Your task to perform on an android device: empty trash in google photos Image 0: 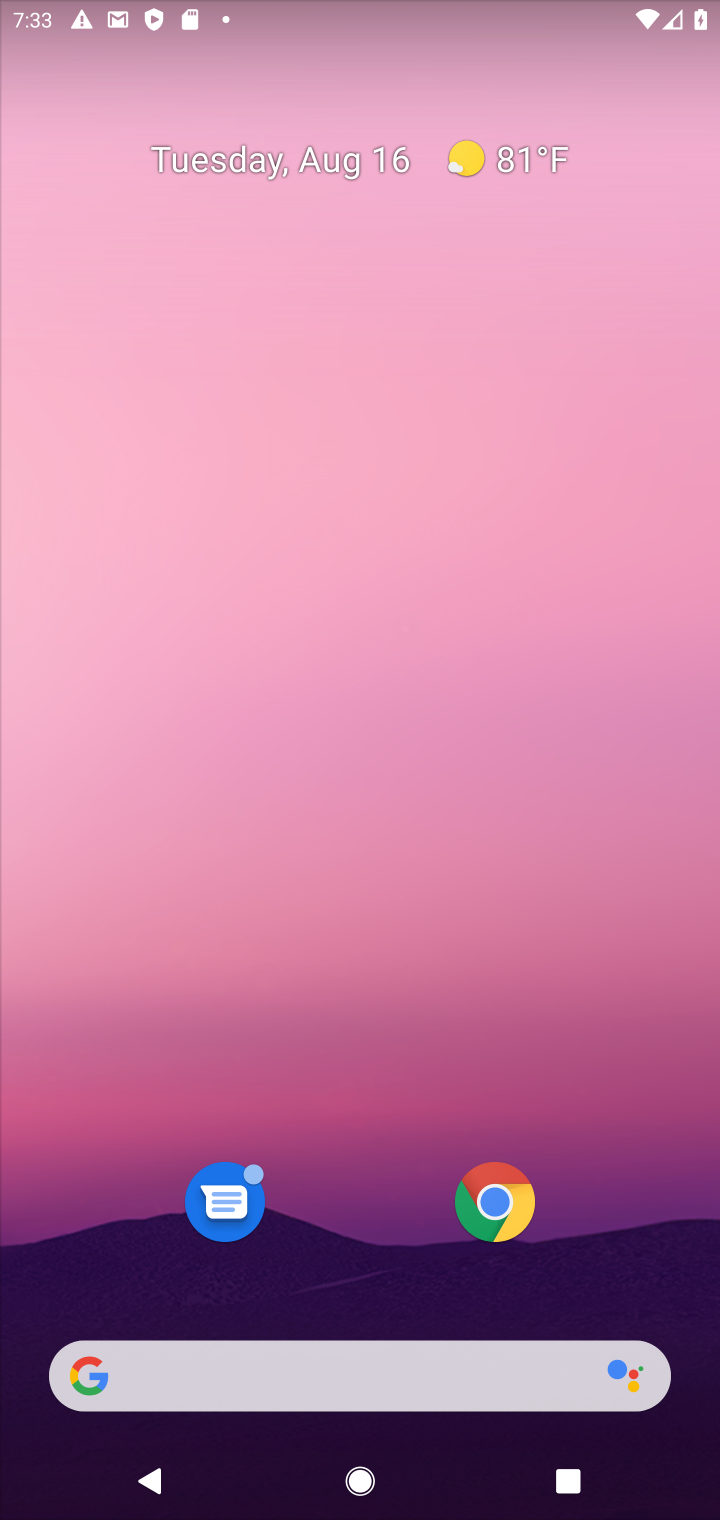
Step 0: drag from (392, 1320) to (252, 7)
Your task to perform on an android device: empty trash in google photos Image 1: 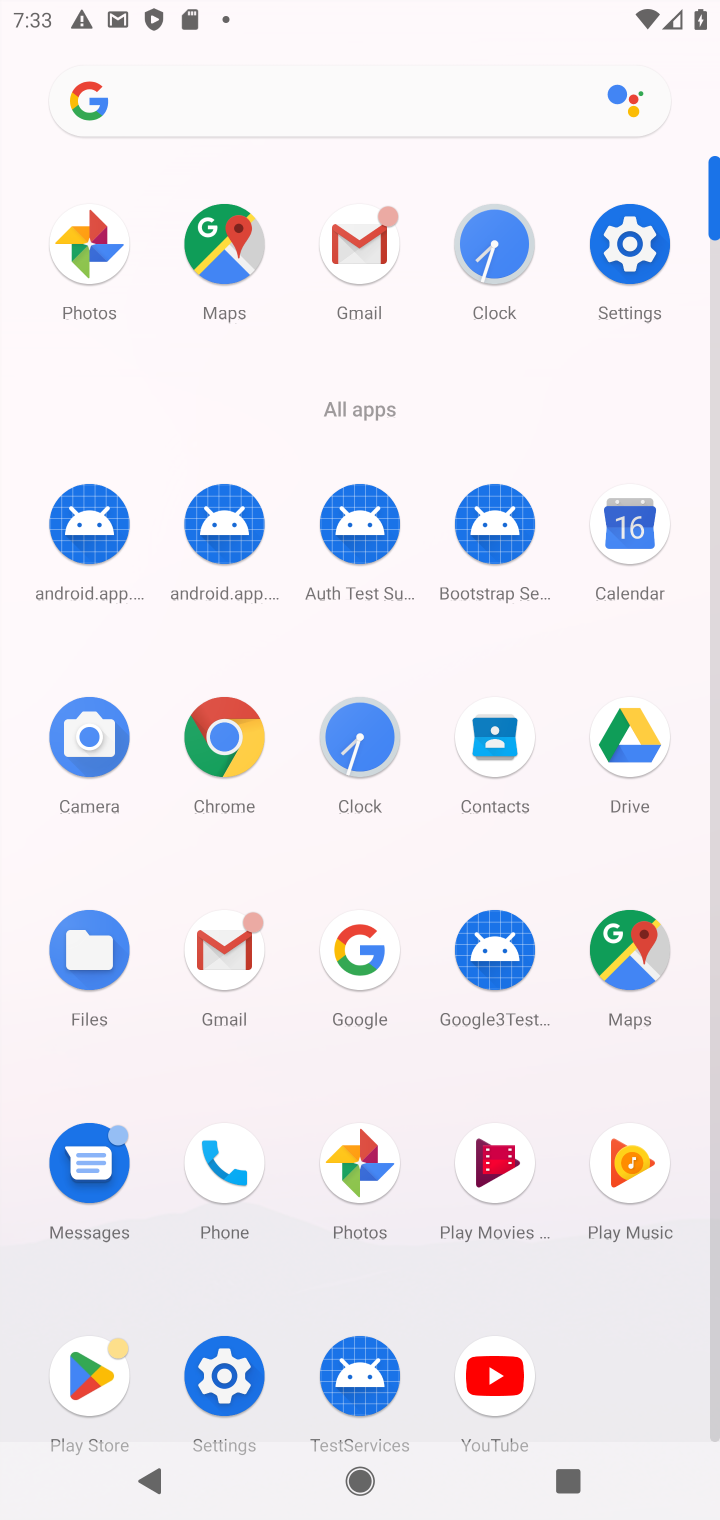
Step 1: click (103, 261)
Your task to perform on an android device: empty trash in google photos Image 2: 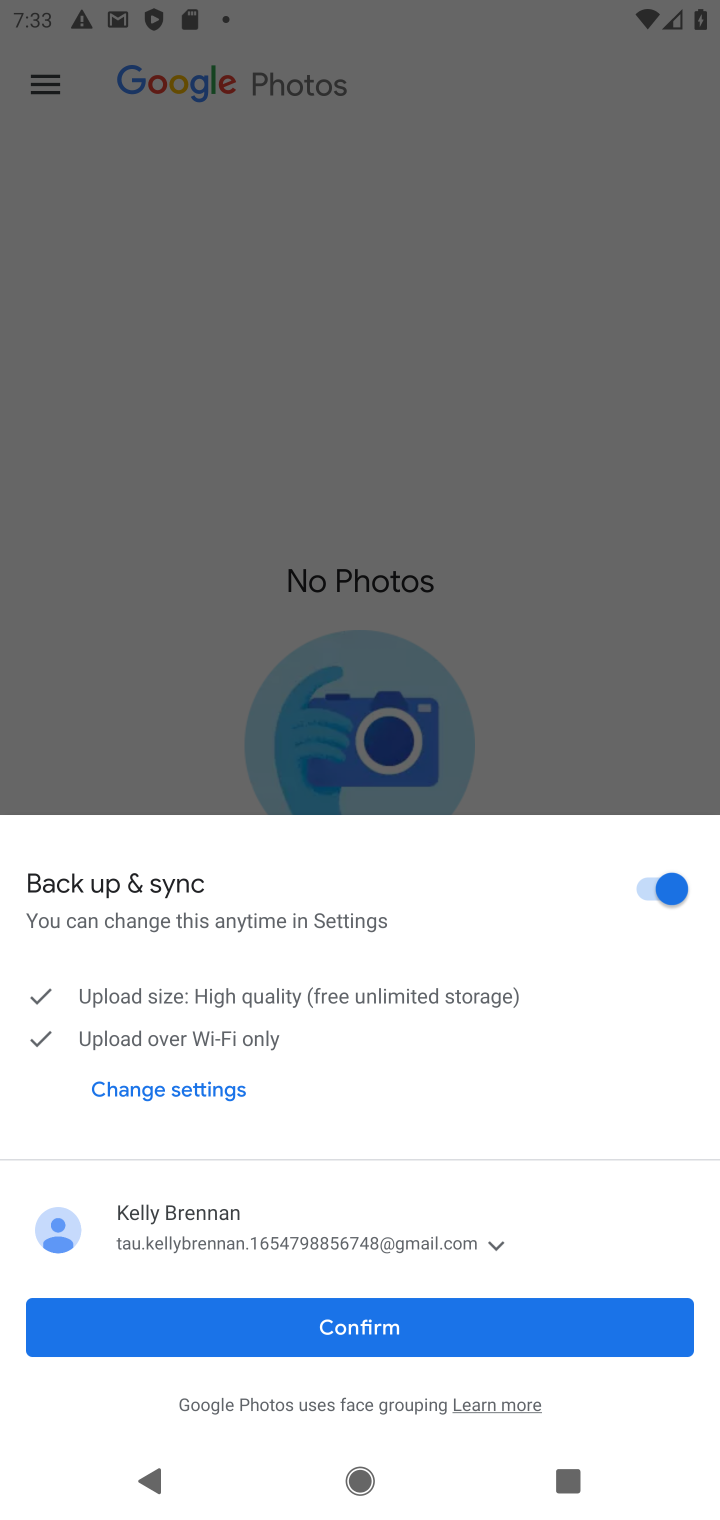
Step 2: click (332, 1328)
Your task to perform on an android device: empty trash in google photos Image 3: 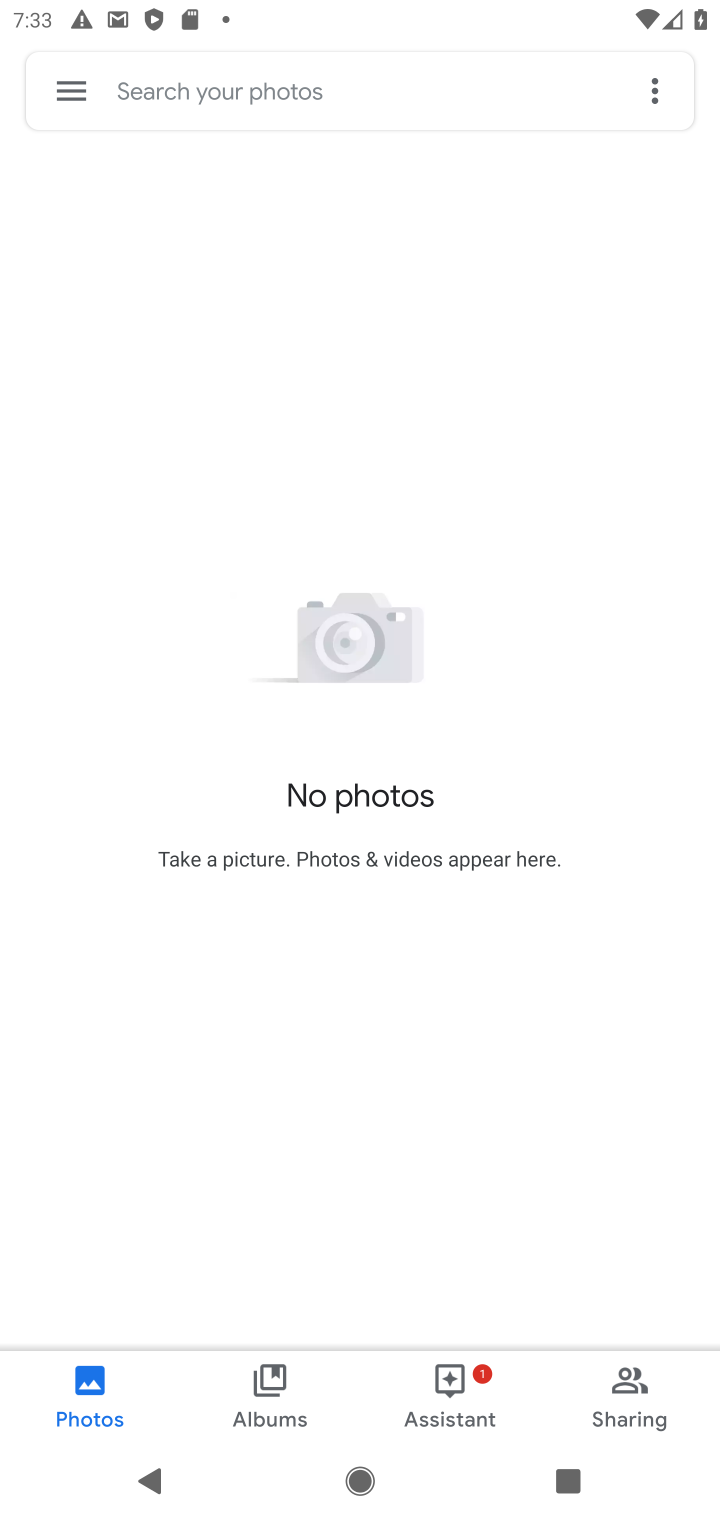
Step 3: click (76, 79)
Your task to perform on an android device: empty trash in google photos Image 4: 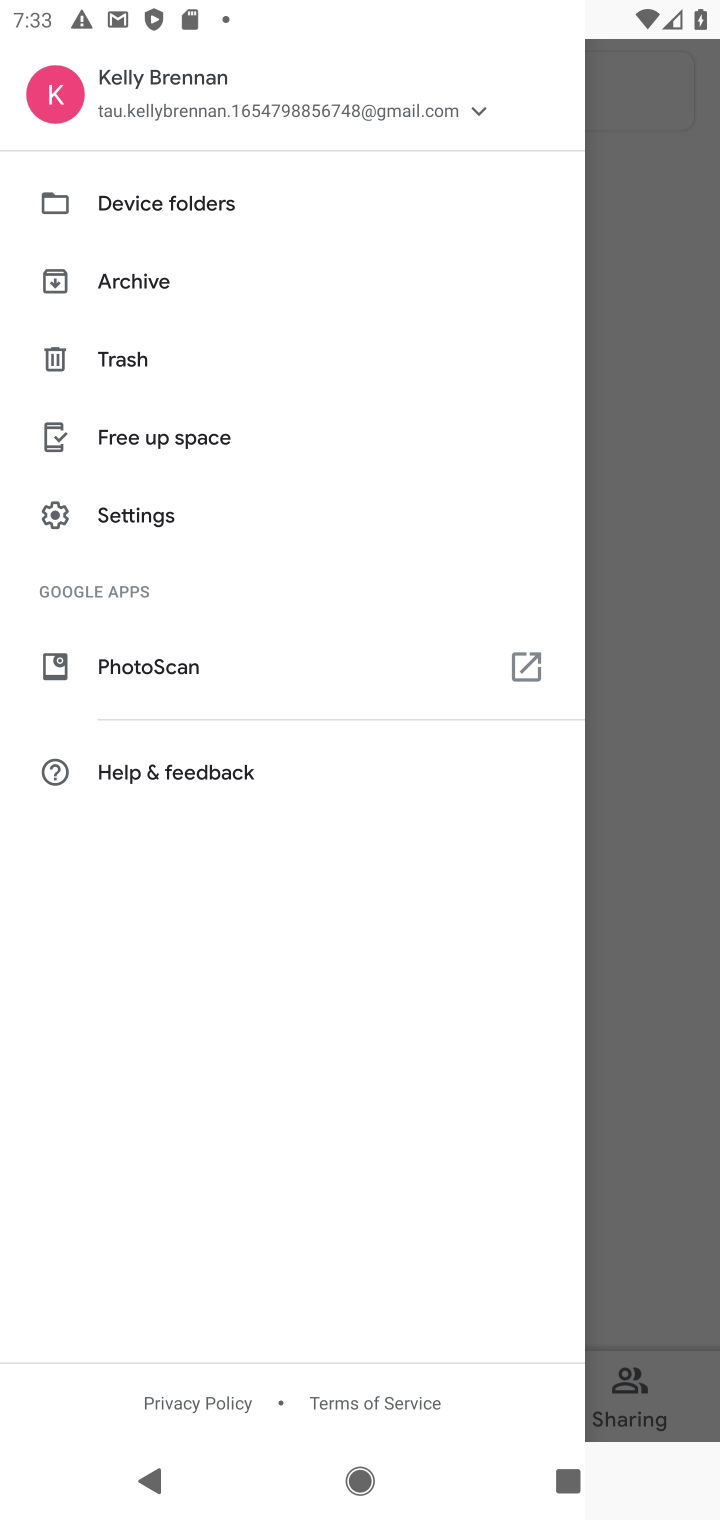
Step 4: click (122, 367)
Your task to perform on an android device: empty trash in google photos Image 5: 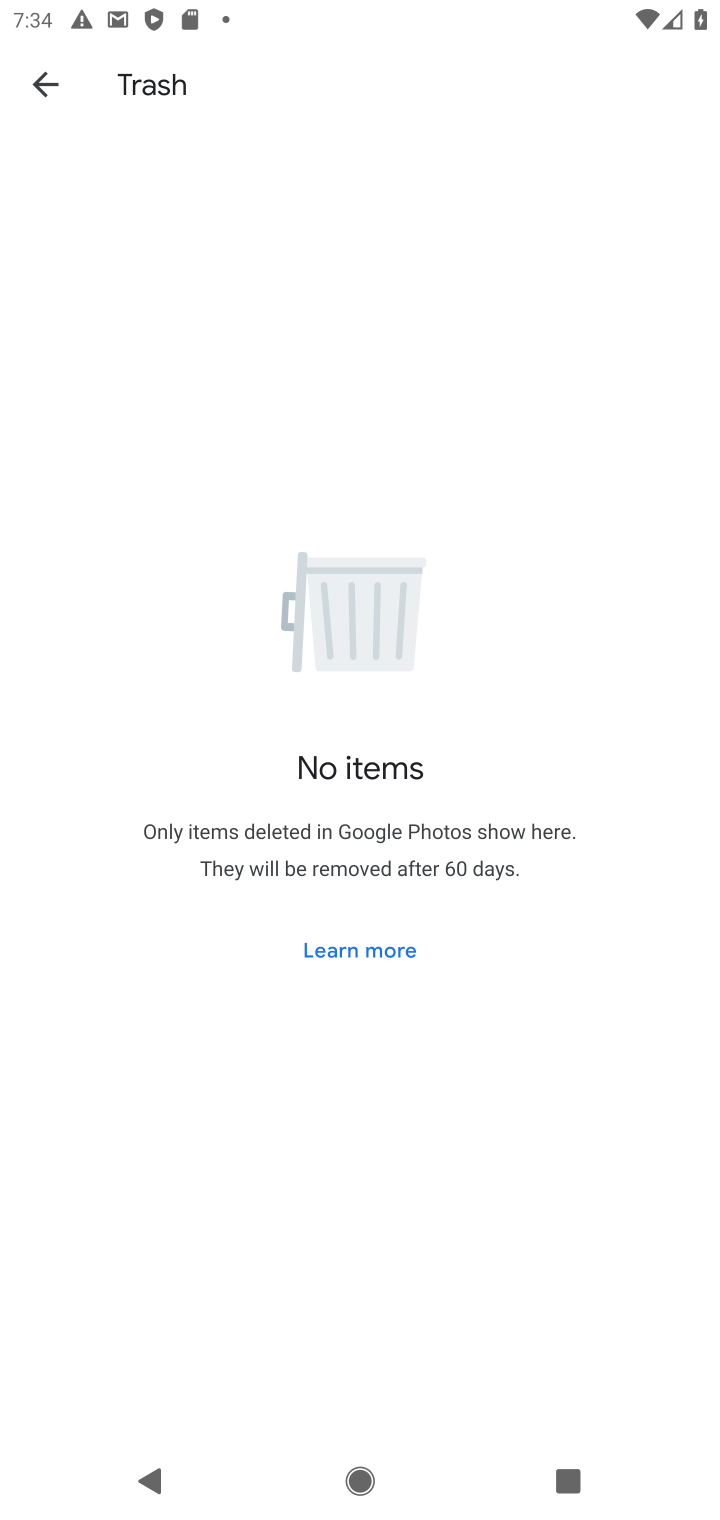
Step 5: task complete